Your task to perform on an android device: Go to battery settings Image 0: 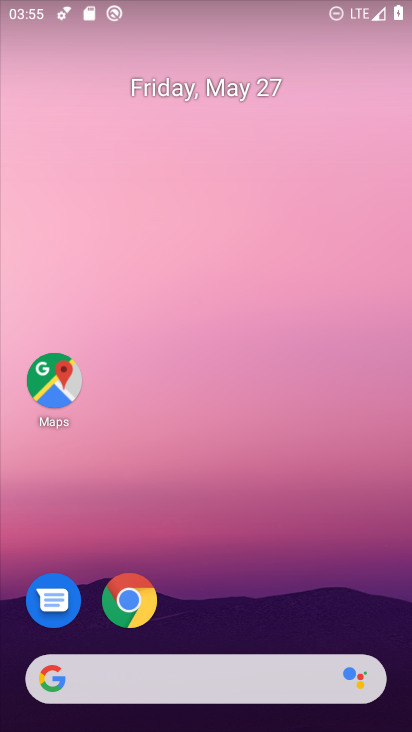
Step 0: drag from (193, 722) to (200, 87)
Your task to perform on an android device: Go to battery settings Image 1: 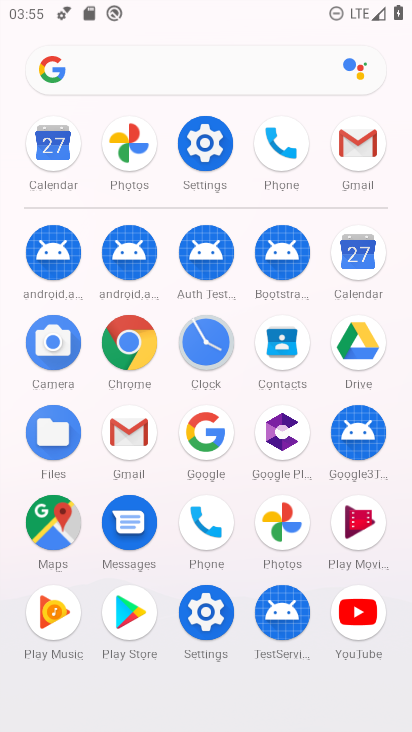
Step 1: click (200, 140)
Your task to perform on an android device: Go to battery settings Image 2: 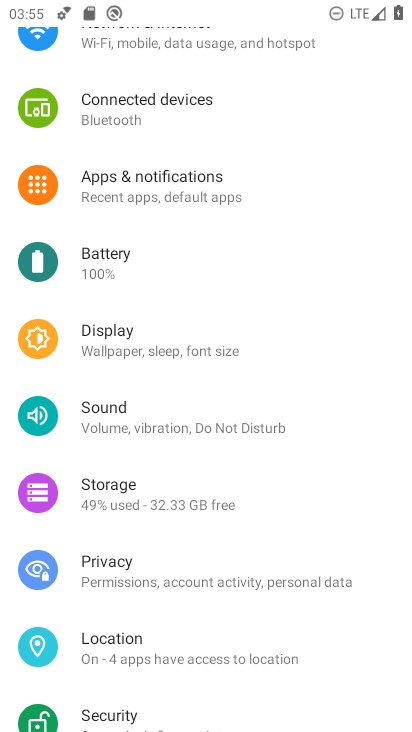
Step 2: click (95, 253)
Your task to perform on an android device: Go to battery settings Image 3: 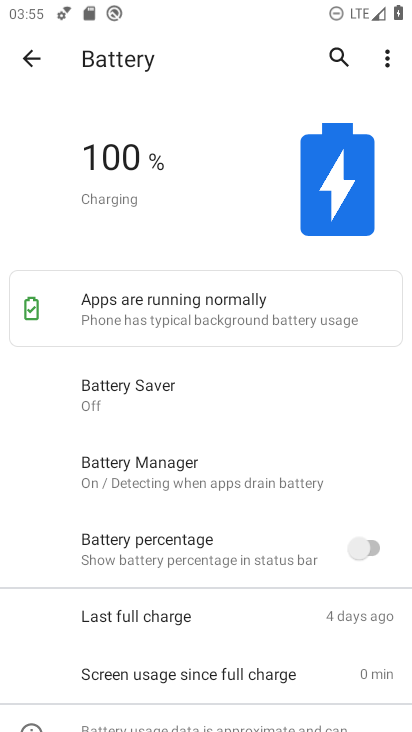
Step 3: task complete